Your task to perform on an android device: When is my next appointment? Image 0: 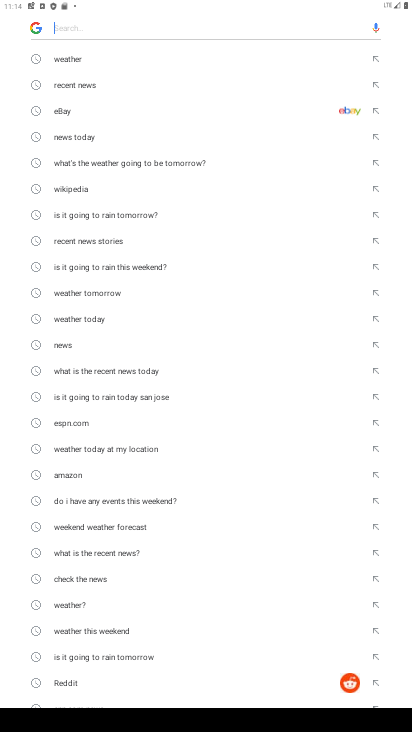
Step 0: press home button
Your task to perform on an android device: When is my next appointment? Image 1: 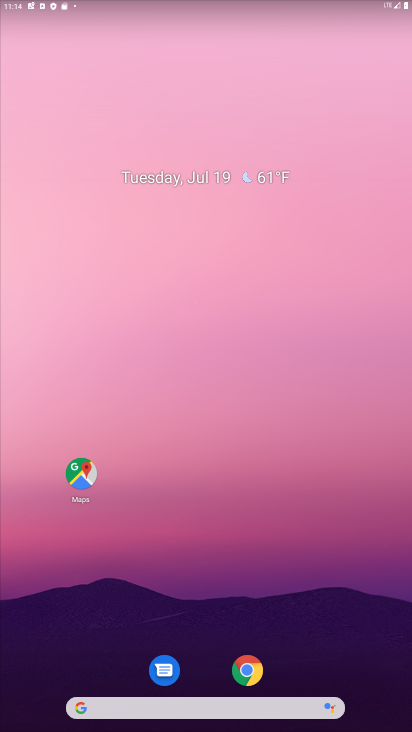
Step 1: drag from (365, 612) to (232, 306)
Your task to perform on an android device: When is my next appointment? Image 2: 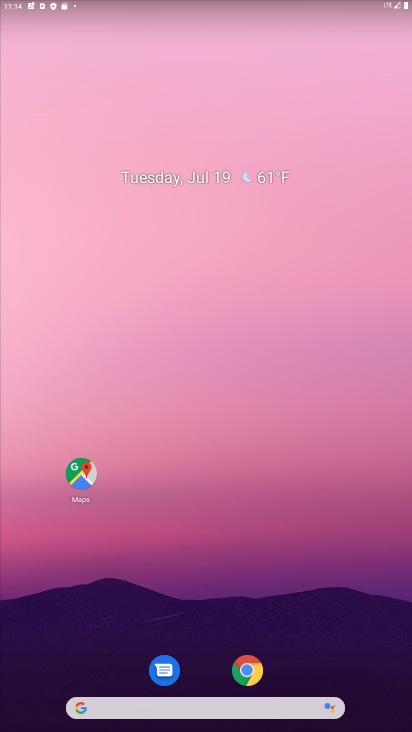
Step 2: drag from (304, 721) to (214, 166)
Your task to perform on an android device: When is my next appointment? Image 3: 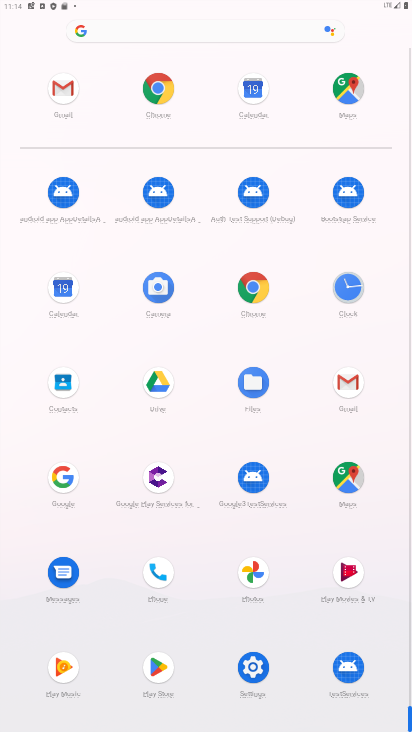
Step 3: click (65, 284)
Your task to perform on an android device: When is my next appointment? Image 4: 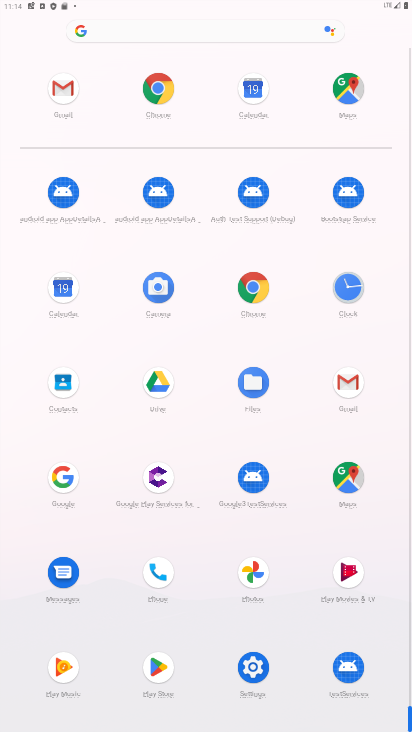
Step 4: click (65, 284)
Your task to perform on an android device: When is my next appointment? Image 5: 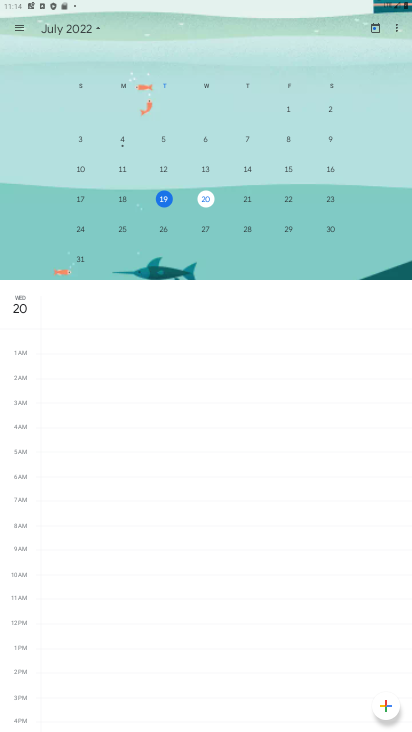
Step 5: click (14, 30)
Your task to perform on an android device: When is my next appointment? Image 6: 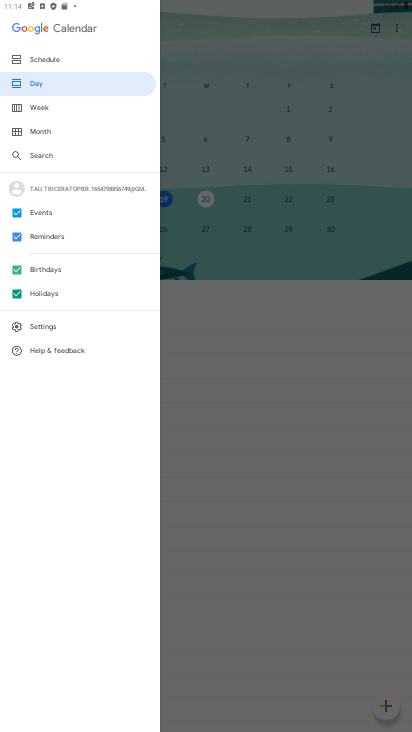
Step 6: click (60, 58)
Your task to perform on an android device: When is my next appointment? Image 7: 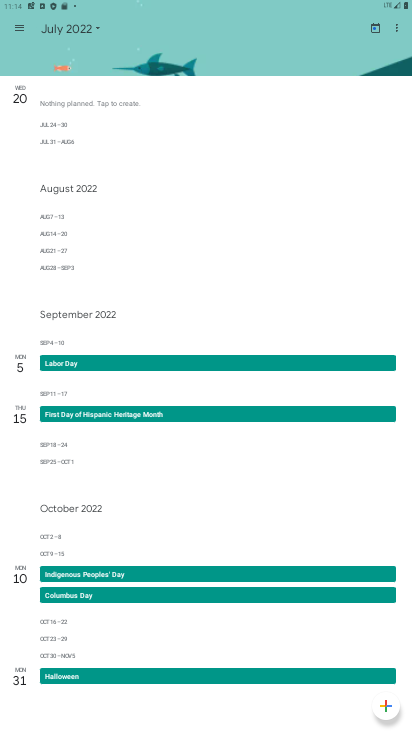
Step 7: task complete